Your task to perform on an android device: change alarm snooze length Image 0: 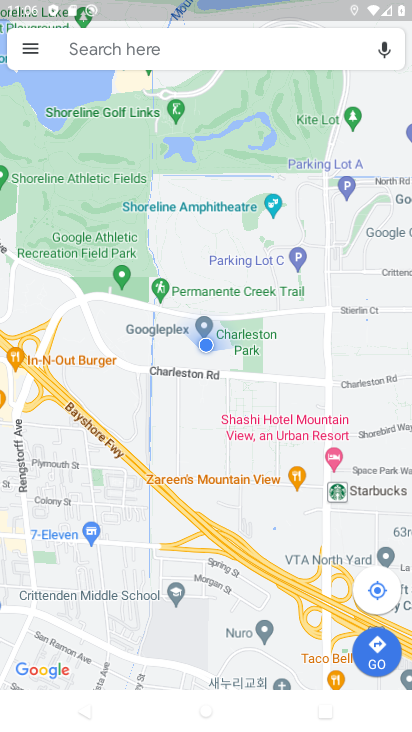
Step 0: press home button
Your task to perform on an android device: change alarm snooze length Image 1: 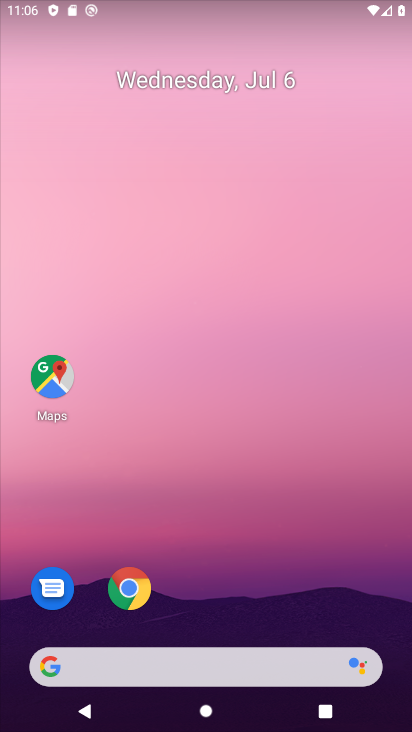
Step 1: drag from (212, 574) to (302, 42)
Your task to perform on an android device: change alarm snooze length Image 2: 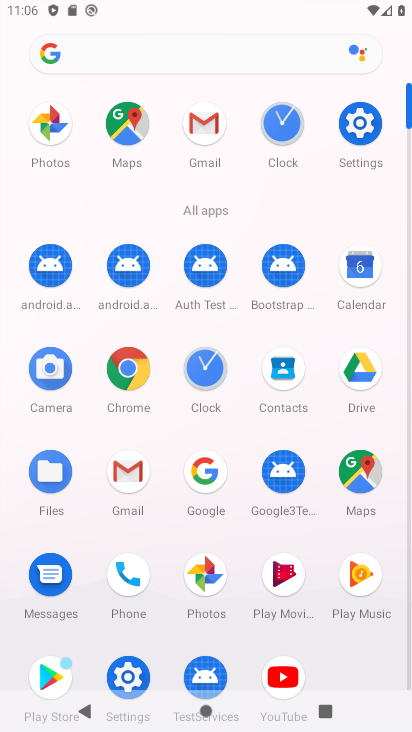
Step 2: click (201, 369)
Your task to perform on an android device: change alarm snooze length Image 3: 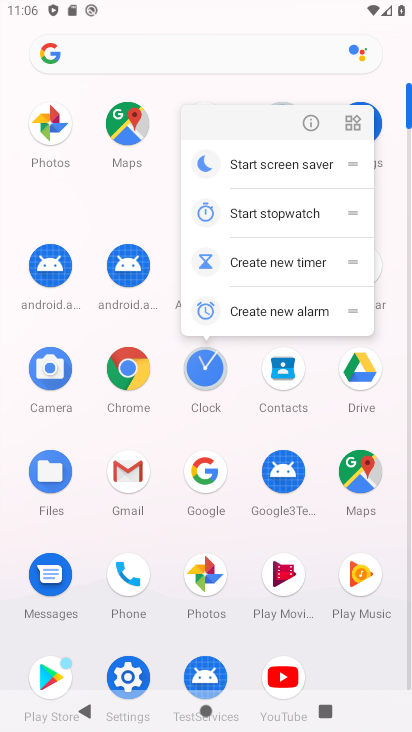
Step 3: click (302, 120)
Your task to perform on an android device: change alarm snooze length Image 4: 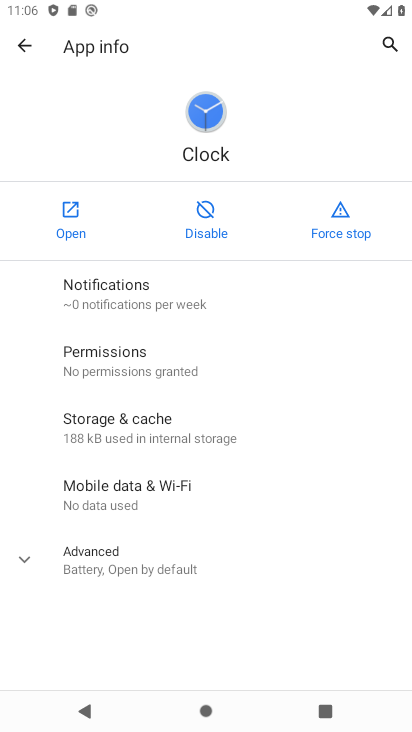
Step 4: click (69, 206)
Your task to perform on an android device: change alarm snooze length Image 5: 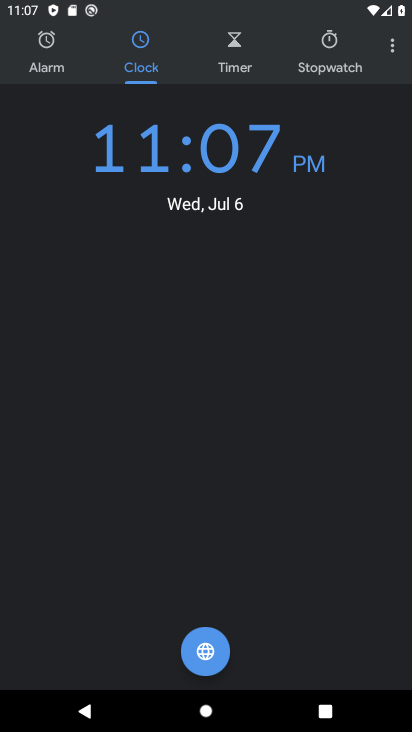
Step 5: click (390, 49)
Your task to perform on an android device: change alarm snooze length Image 6: 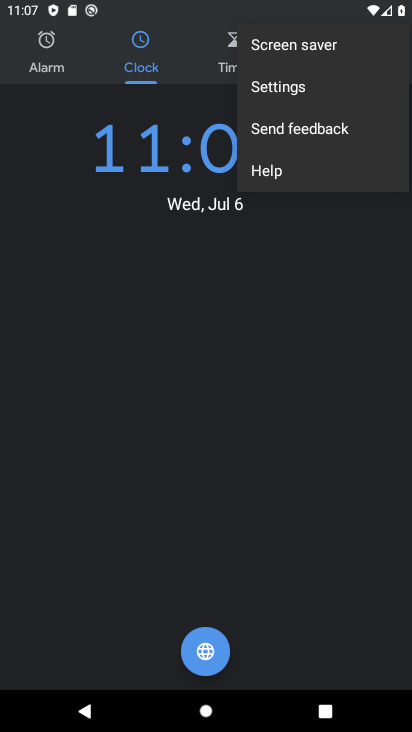
Step 6: click (308, 91)
Your task to perform on an android device: change alarm snooze length Image 7: 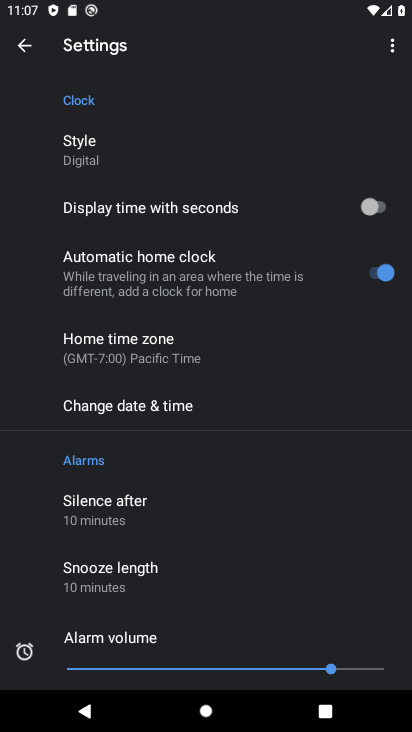
Step 7: click (134, 575)
Your task to perform on an android device: change alarm snooze length Image 8: 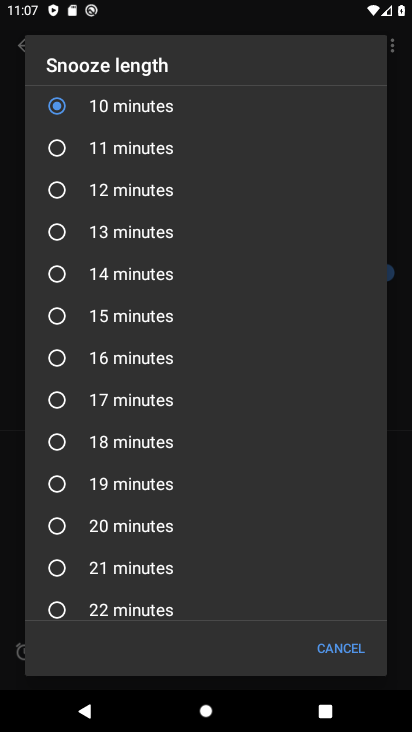
Step 8: click (115, 191)
Your task to perform on an android device: change alarm snooze length Image 9: 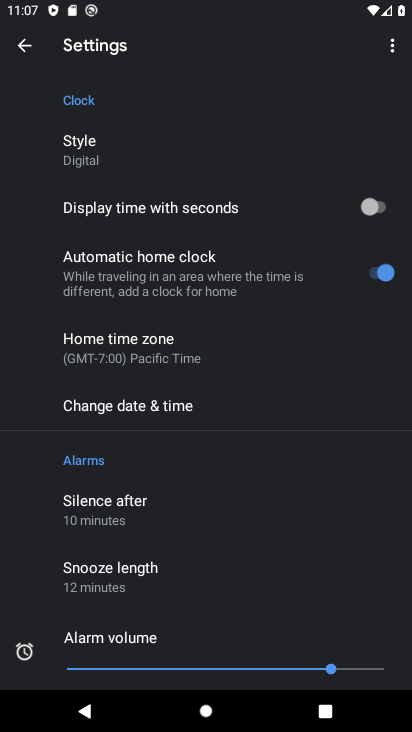
Step 9: task complete